Your task to perform on an android device: toggle show notifications on the lock screen Image 0: 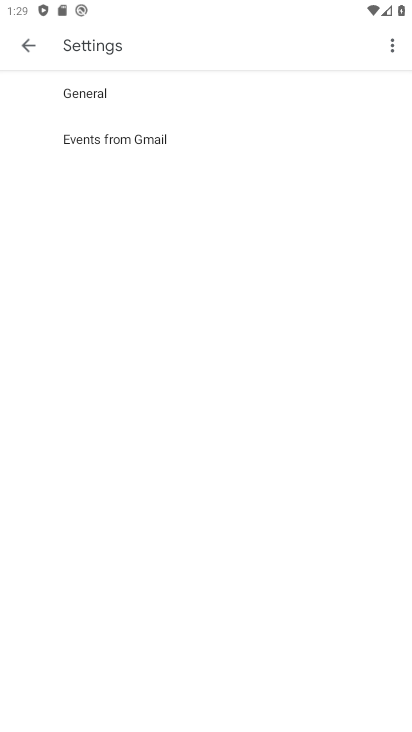
Step 0: press back button
Your task to perform on an android device: toggle show notifications on the lock screen Image 1: 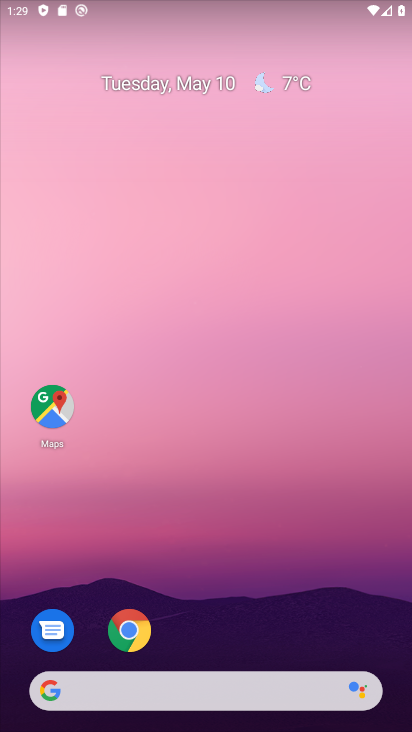
Step 1: drag from (250, 576) to (206, 34)
Your task to perform on an android device: toggle show notifications on the lock screen Image 2: 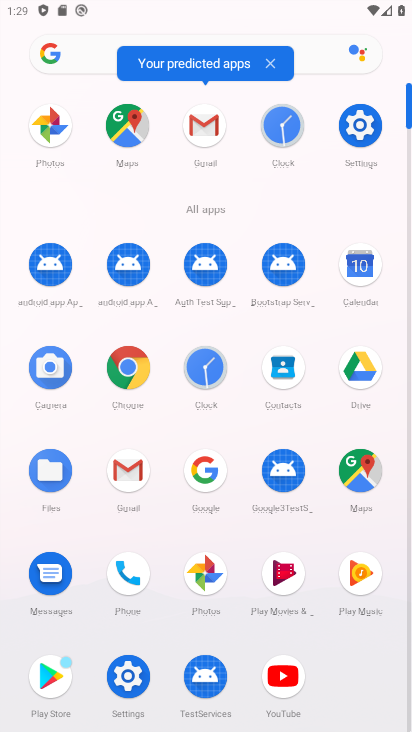
Step 2: drag from (9, 584) to (0, 214)
Your task to perform on an android device: toggle show notifications on the lock screen Image 3: 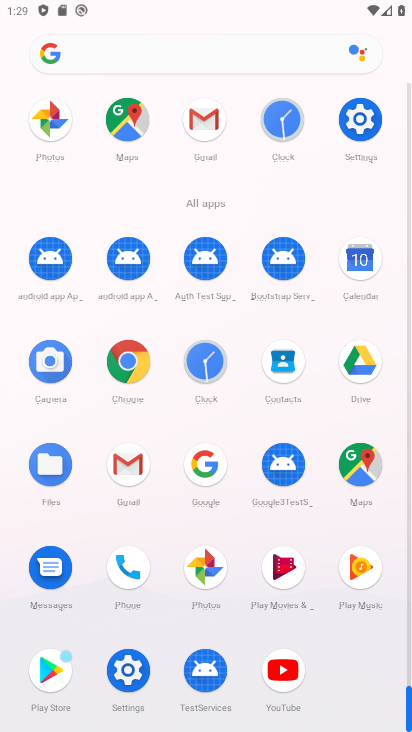
Step 3: click (123, 667)
Your task to perform on an android device: toggle show notifications on the lock screen Image 4: 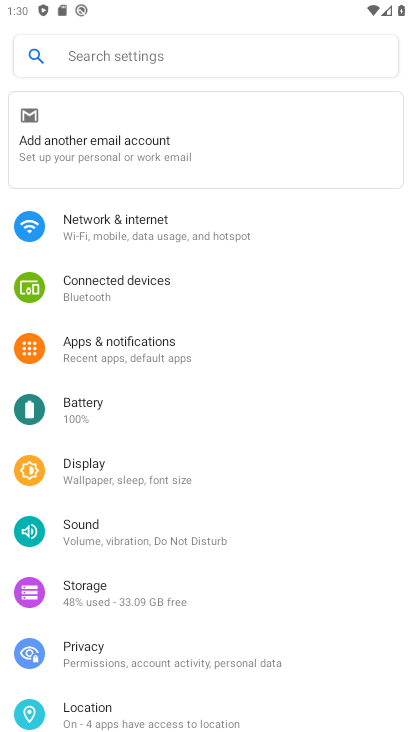
Step 4: drag from (186, 478) to (191, 286)
Your task to perform on an android device: toggle show notifications on the lock screen Image 5: 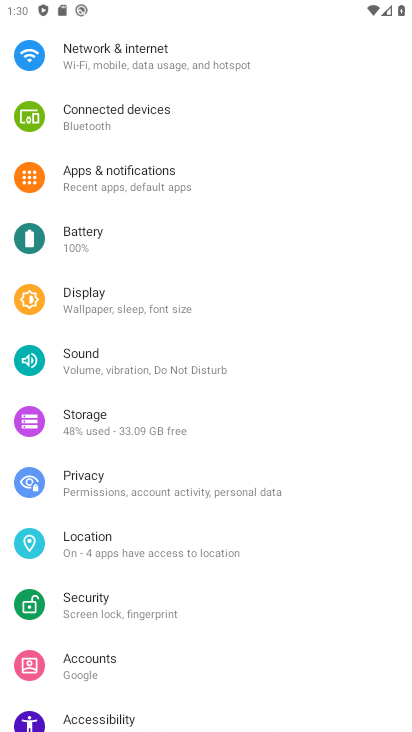
Step 5: click (162, 165)
Your task to perform on an android device: toggle show notifications on the lock screen Image 6: 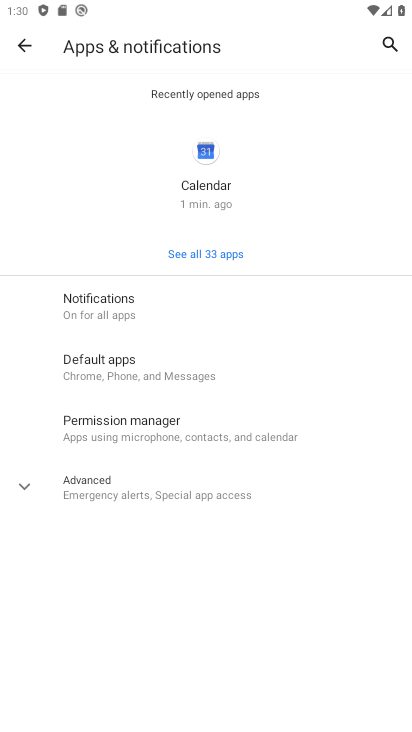
Step 6: click (27, 484)
Your task to perform on an android device: toggle show notifications on the lock screen Image 7: 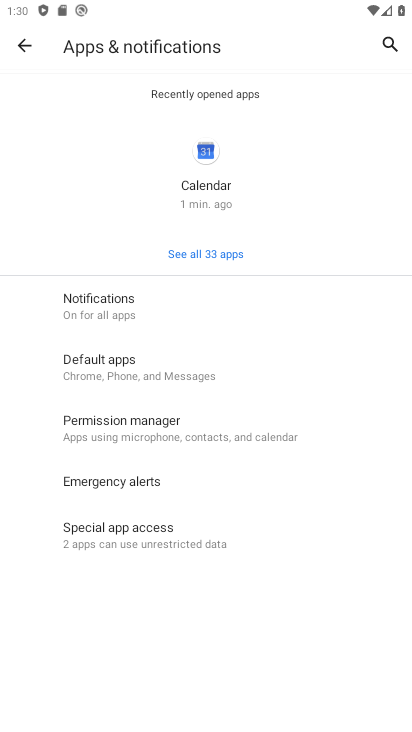
Step 7: click (88, 297)
Your task to perform on an android device: toggle show notifications on the lock screen Image 8: 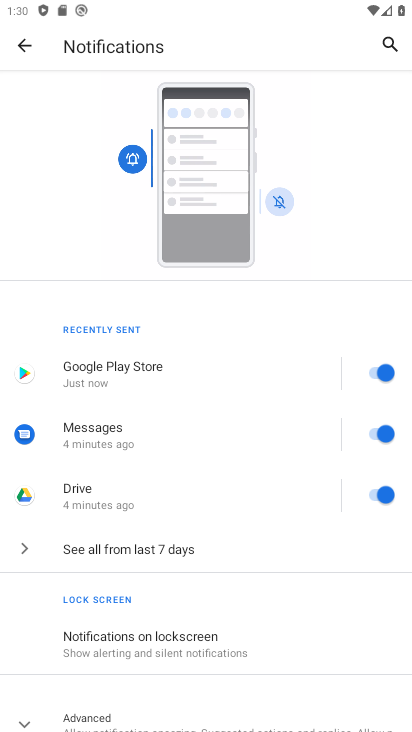
Step 8: drag from (181, 521) to (237, 108)
Your task to perform on an android device: toggle show notifications on the lock screen Image 9: 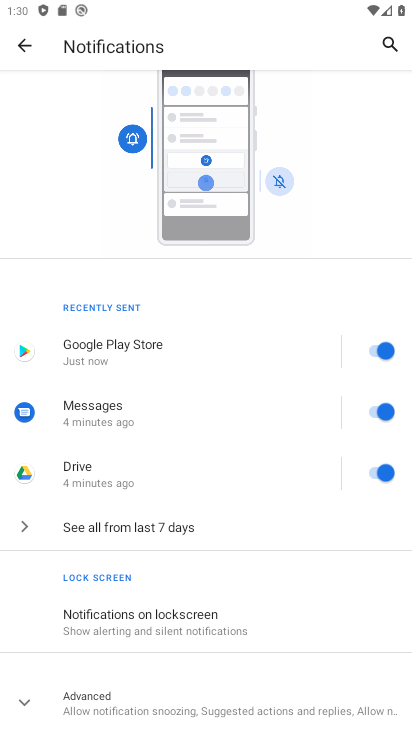
Step 9: click (183, 616)
Your task to perform on an android device: toggle show notifications on the lock screen Image 10: 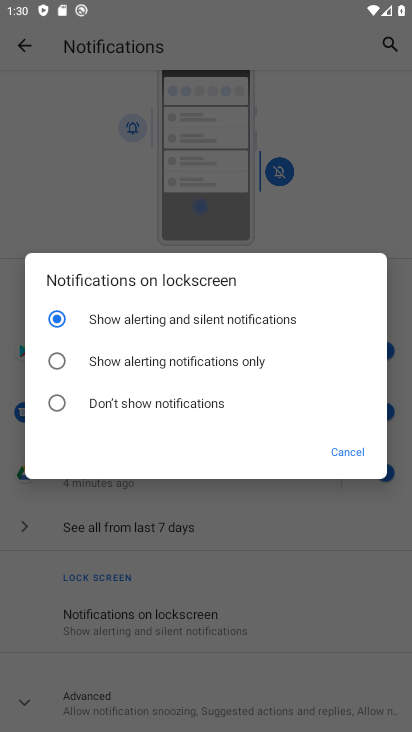
Step 10: click (140, 312)
Your task to perform on an android device: toggle show notifications on the lock screen Image 11: 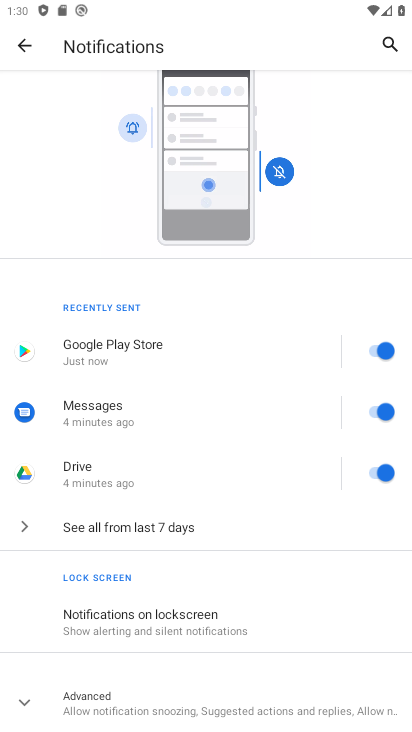
Step 11: click (119, 603)
Your task to perform on an android device: toggle show notifications on the lock screen Image 12: 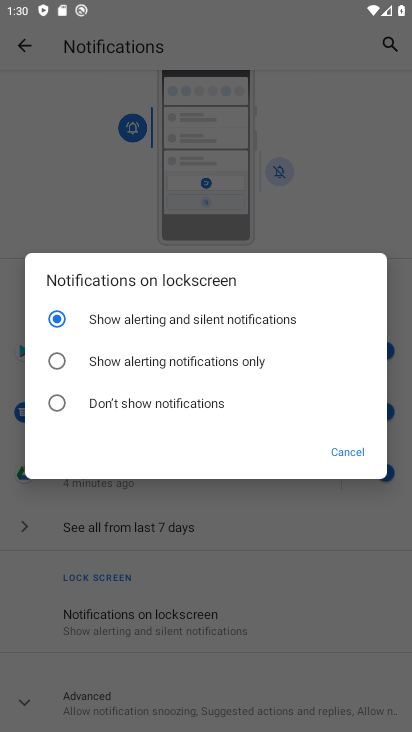
Step 12: click (150, 366)
Your task to perform on an android device: toggle show notifications on the lock screen Image 13: 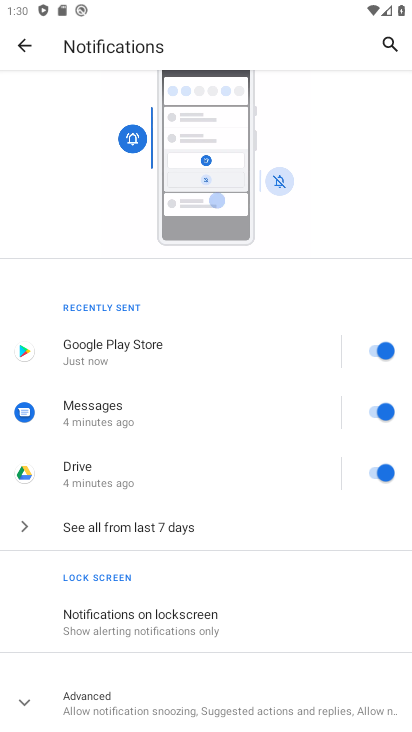
Step 13: task complete